Your task to perform on an android device: turn notification dots off Image 0: 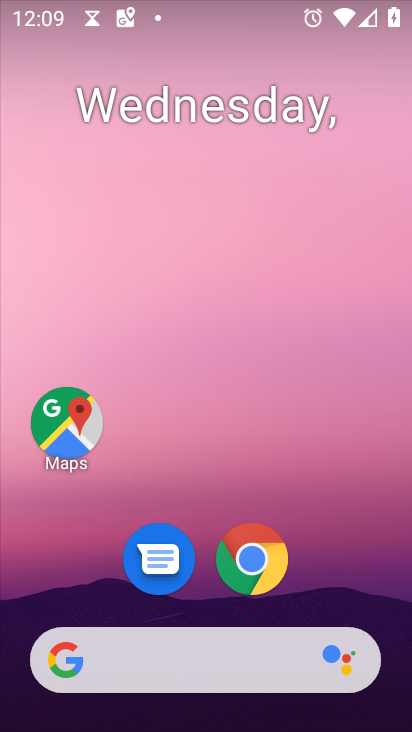
Step 0: drag from (351, 569) to (319, 95)
Your task to perform on an android device: turn notification dots off Image 1: 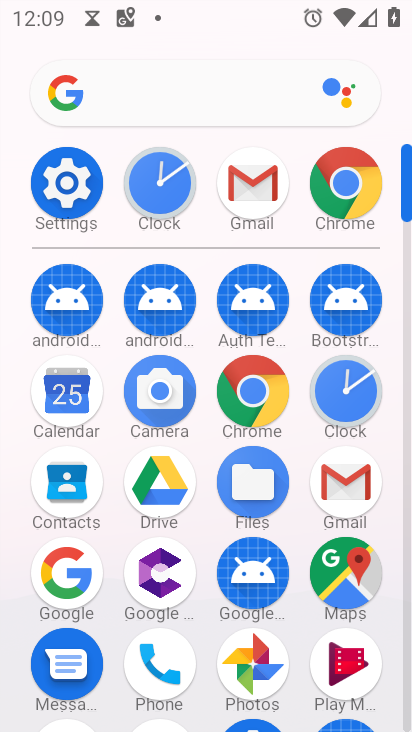
Step 1: click (62, 192)
Your task to perform on an android device: turn notification dots off Image 2: 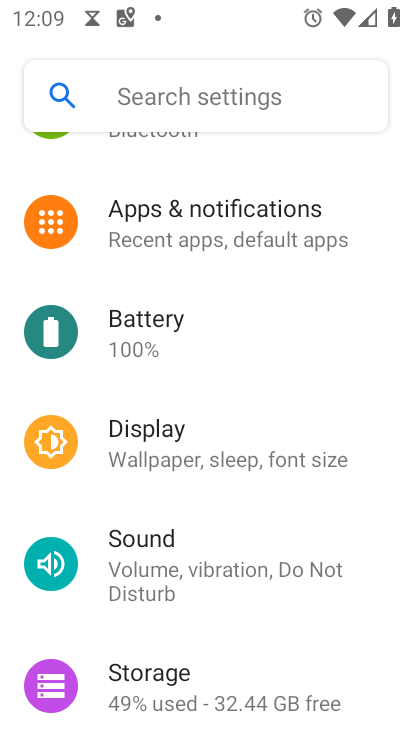
Step 2: click (235, 247)
Your task to perform on an android device: turn notification dots off Image 3: 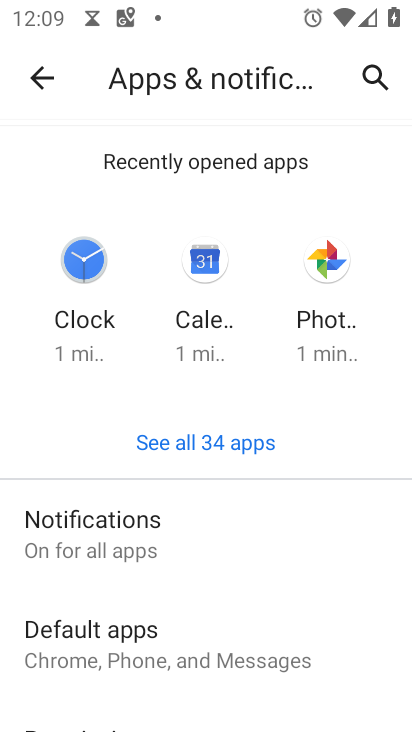
Step 3: click (108, 541)
Your task to perform on an android device: turn notification dots off Image 4: 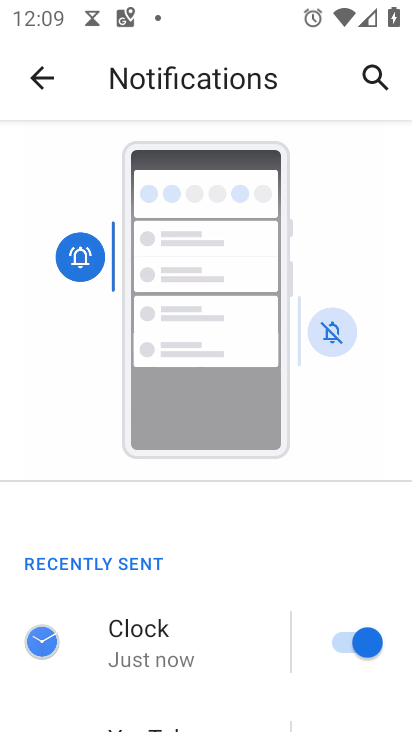
Step 4: drag from (282, 627) to (371, 35)
Your task to perform on an android device: turn notification dots off Image 5: 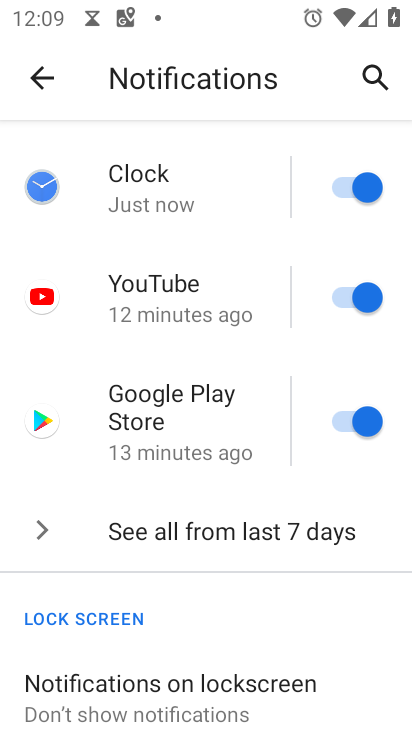
Step 5: drag from (236, 596) to (314, 2)
Your task to perform on an android device: turn notification dots off Image 6: 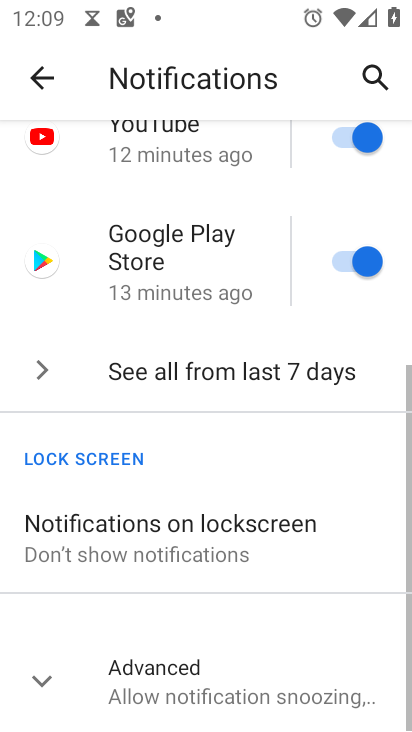
Step 6: click (231, 515)
Your task to perform on an android device: turn notification dots off Image 7: 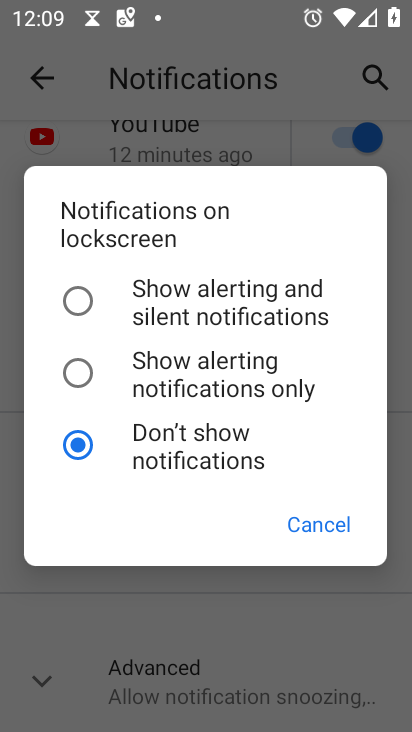
Step 7: click (161, 377)
Your task to perform on an android device: turn notification dots off Image 8: 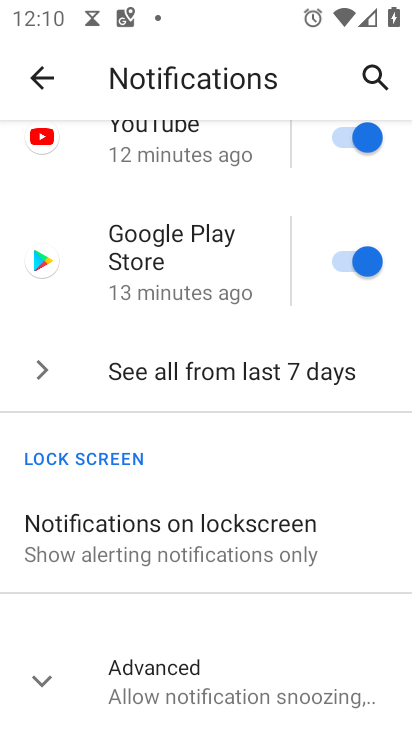
Step 8: task complete